Your task to perform on an android device: empty trash in google photos Image 0: 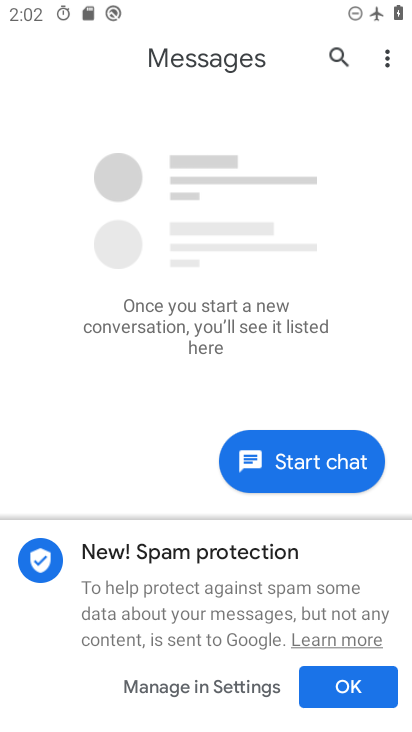
Step 0: press home button
Your task to perform on an android device: empty trash in google photos Image 1: 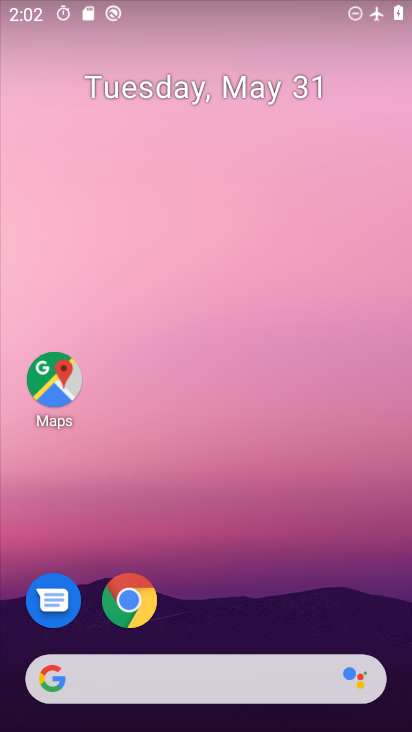
Step 1: drag from (225, 723) to (222, 61)
Your task to perform on an android device: empty trash in google photos Image 2: 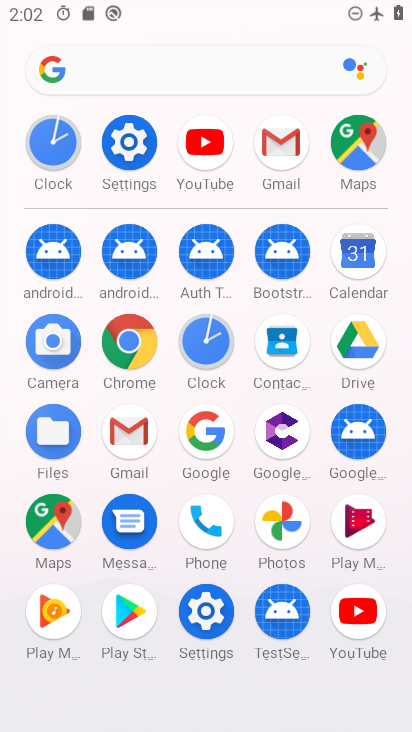
Step 2: click (281, 529)
Your task to perform on an android device: empty trash in google photos Image 3: 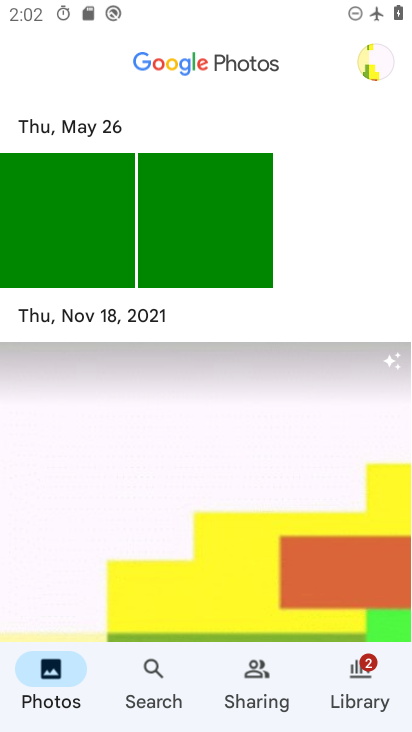
Step 3: click (364, 658)
Your task to perform on an android device: empty trash in google photos Image 4: 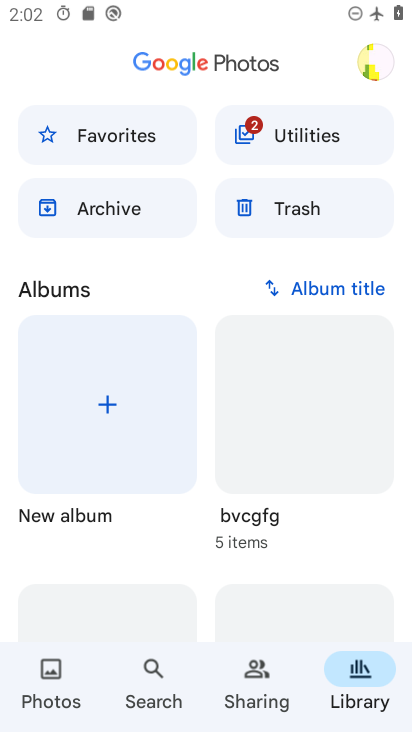
Step 4: click (283, 216)
Your task to perform on an android device: empty trash in google photos Image 5: 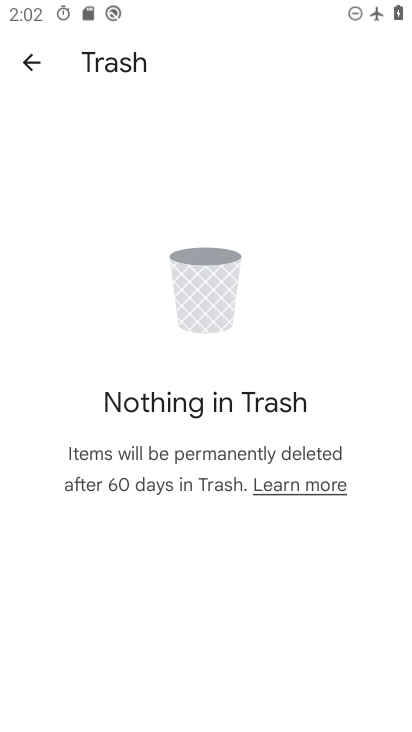
Step 5: task complete